Your task to perform on an android device: change the clock display to digital Image 0: 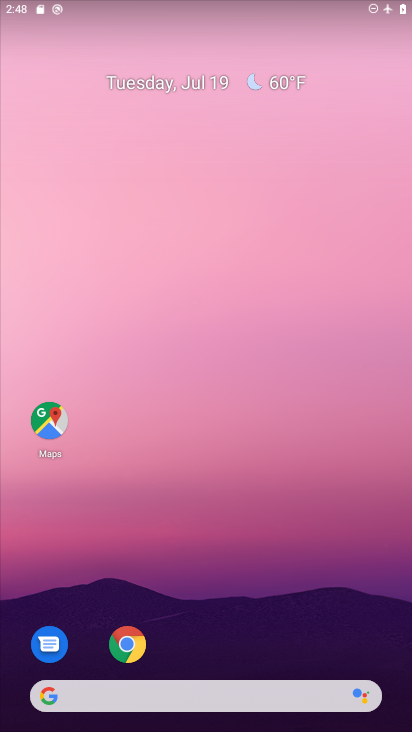
Step 0: drag from (214, 658) to (166, 53)
Your task to perform on an android device: change the clock display to digital Image 1: 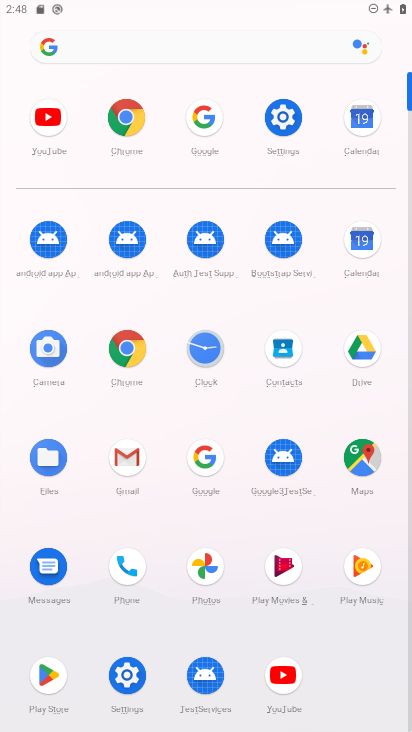
Step 1: click (197, 364)
Your task to perform on an android device: change the clock display to digital Image 2: 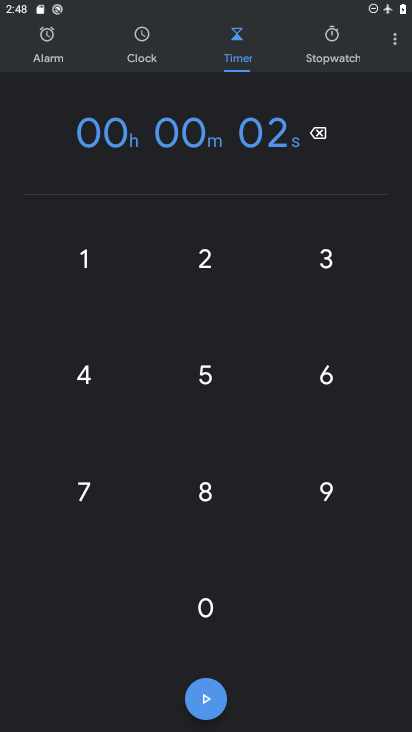
Step 2: drag from (394, 45) to (339, 84)
Your task to perform on an android device: change the clock display to digital Image 3: 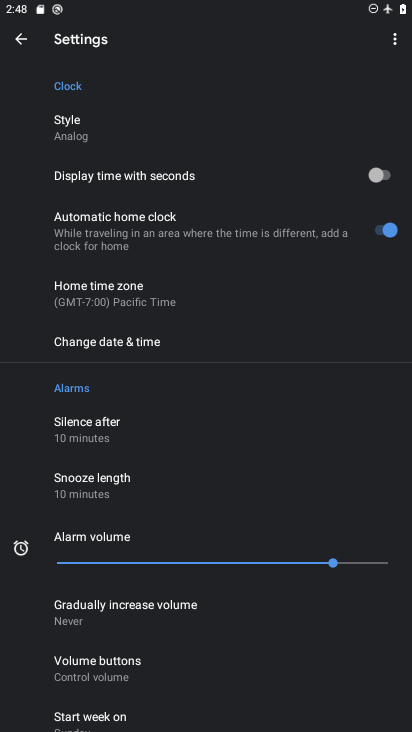
Step 3: click (99, 140)
Your task to perform on an android device: change the clock display to digital Image 4: 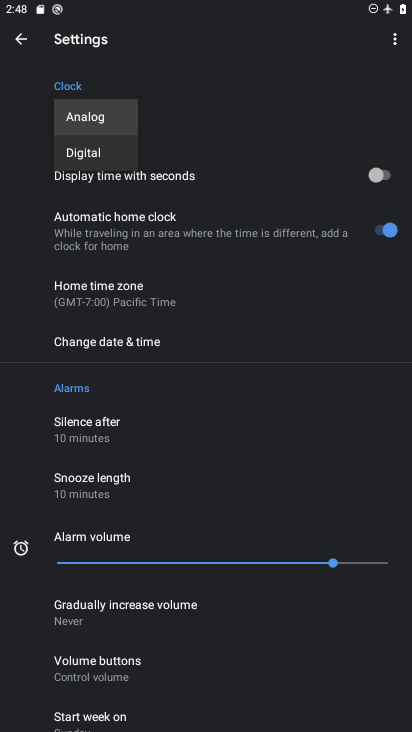
Step 4: click (106, 149)
Your task to perform on an android device: change the clock display to digital Image 5: 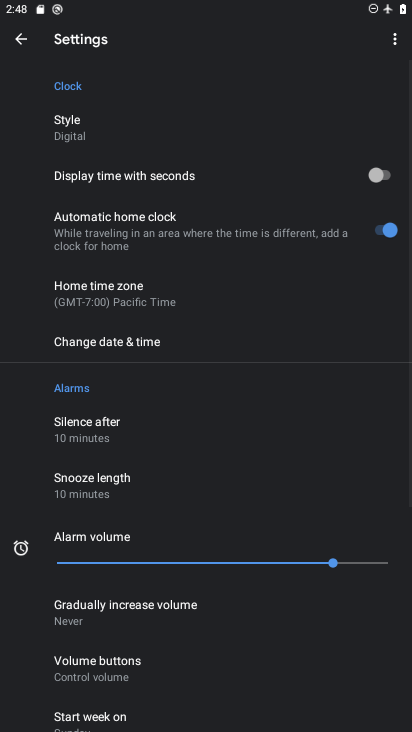
Step 5: task complete